Your task to perform on an android device: Open Chrome and go to settings Image 0: 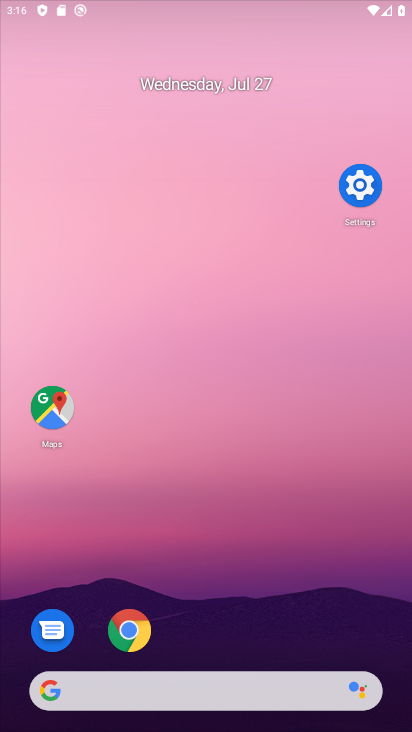
Step 0: press home button
Your task to perform on an android device: Open Chrome and go to settings Image 1: 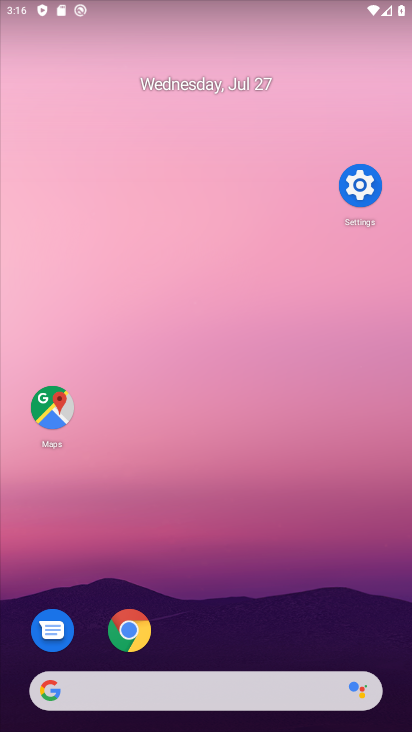
Step 1: click (136, 628)
Your task to perform on an android device: Open Chrome and go to settings Image 2: 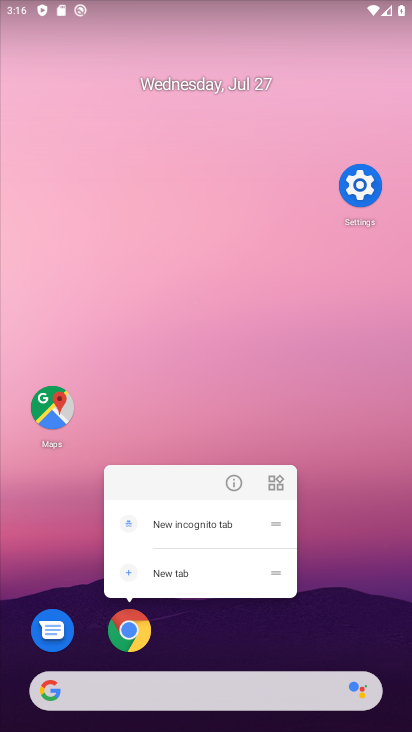
Step 2: click (136, 626)
Your task to perform on an android device: Open Chrome and go to settings Image 3: 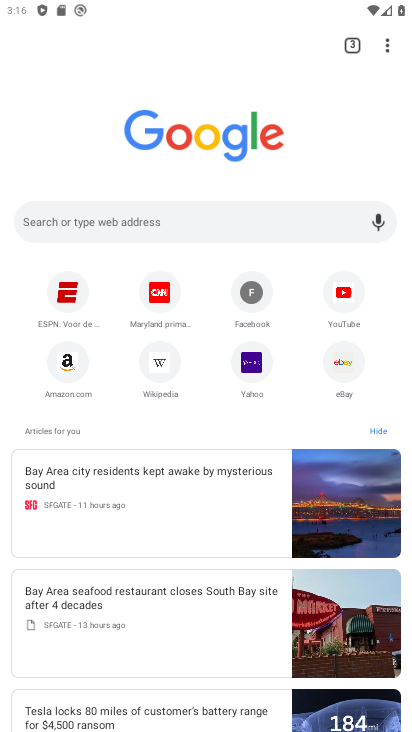
Step 3: task complete